Your task to perform on an android device: toggle notification dots Image 0: 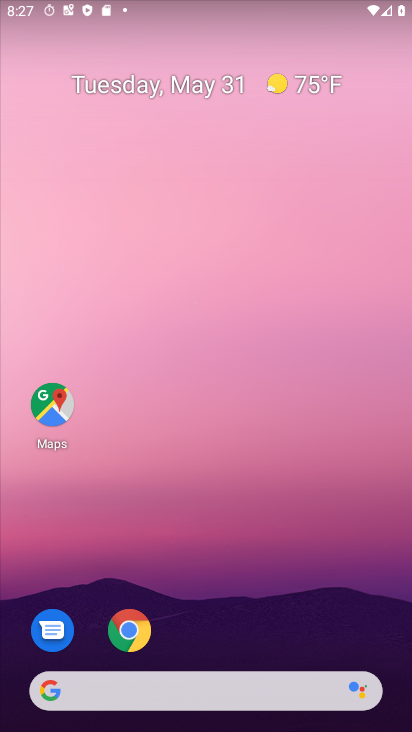
Step 0: drag from (234, 616) to (225, 186)
Your task to perform on an android device: toggle notification dots Image 1: 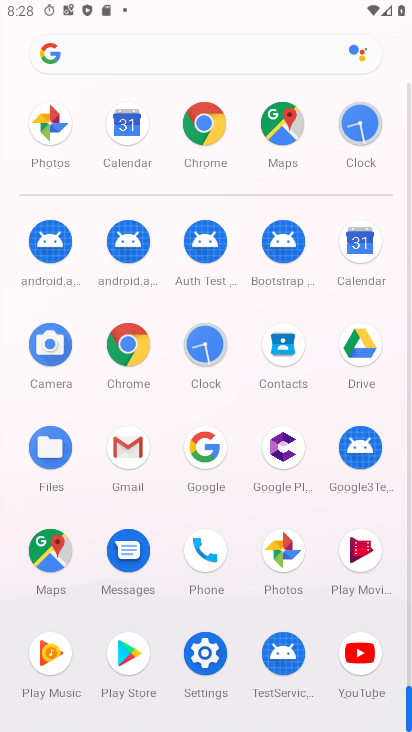
Step 1: drag from (176, 511) to (250, 182)
Your task to perform on an android device: toggle notification dots Image 2: 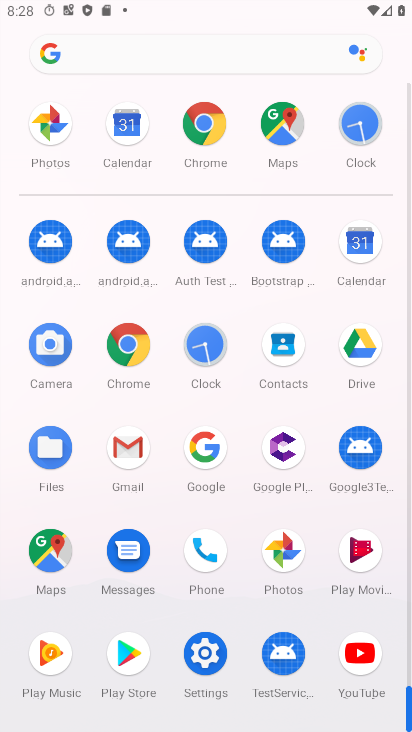
Step 2: drag from (188, 510) to (237, 274)
Your task to perform on an android device: toggle notification dots Image 3: 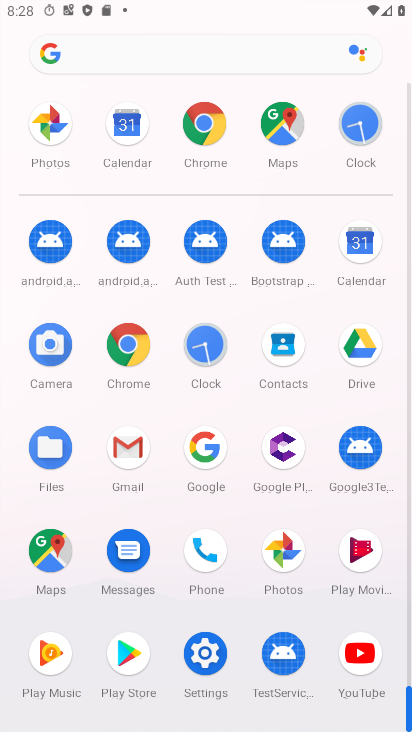
Step 3: click (209, 656)
Your task to perform on an android device: toggle notification dots Image 4: 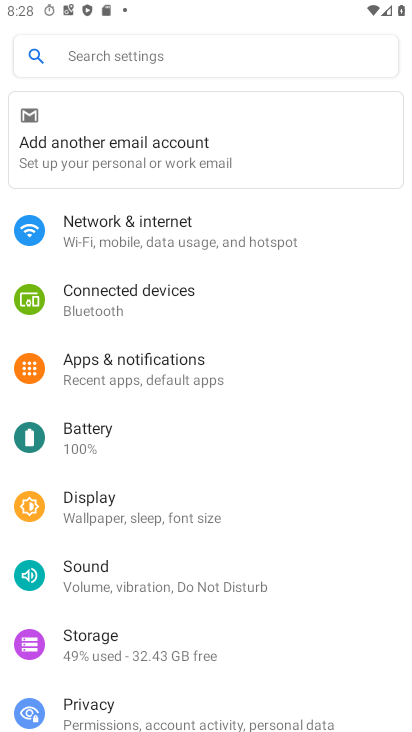
Step 4: click (138, 380)
Your task to perform on an android device: toggle notification dots Image 5: 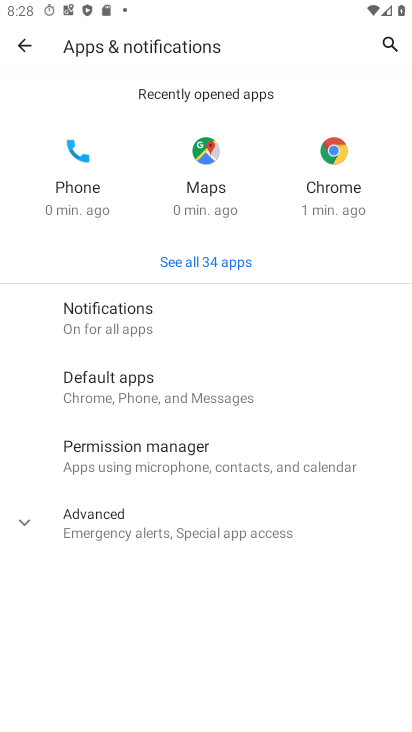
Step 5: click (168, 315)
Your task to perform on an android device: toggle notification dots Image 6: 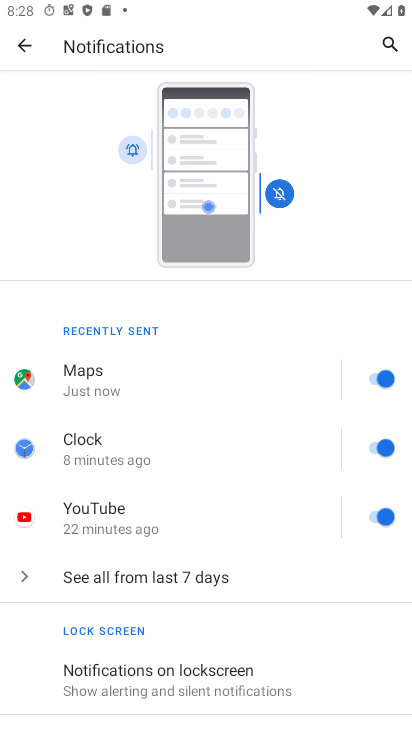
Step 6: drag from (143, 656) to (187, 351)
Your task to perform on an android device: toggle notification dots Image 7: 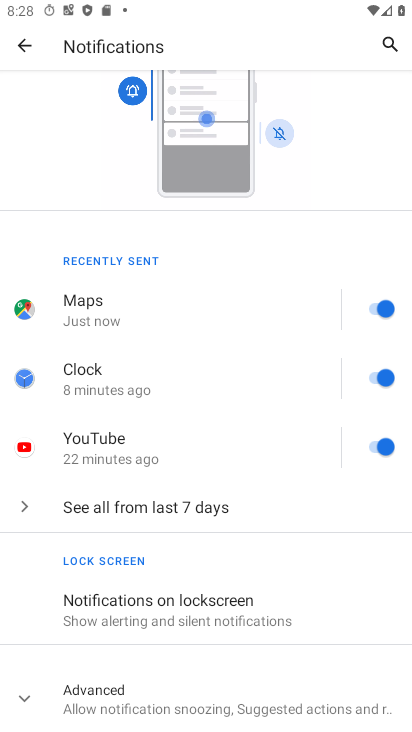
Step 7: click (103, 697)
Your task to perform on an android device: toggle notification dots Image 8: 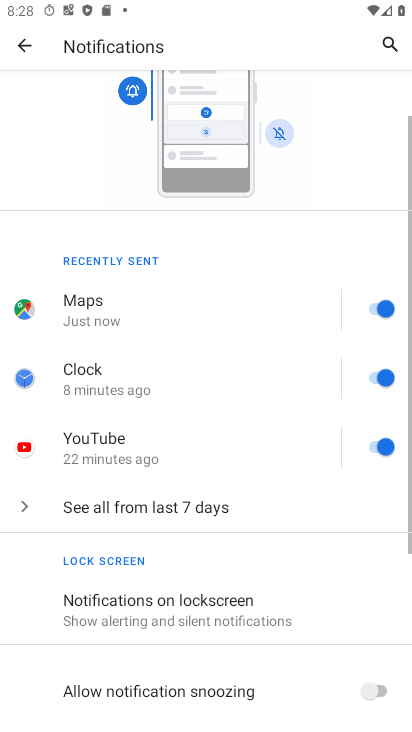
Step 8: drag from (180, 608) to (236, 241)
Your task to perform on an android device: toggle notification dots Image 9: 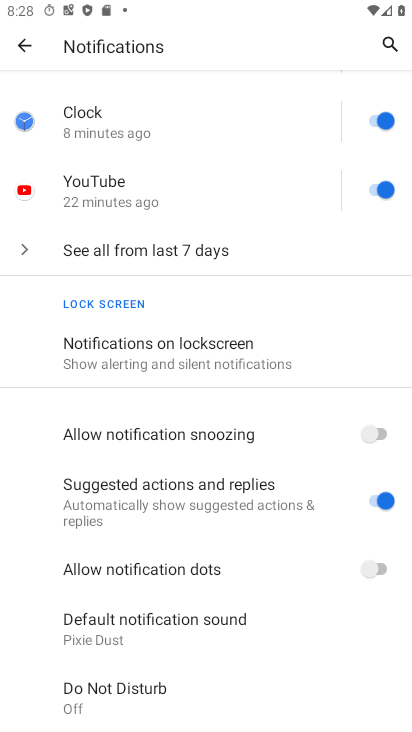
Step 9: click (398, 573)
Your task to perform on an android device: toggle notification dots Image 10: 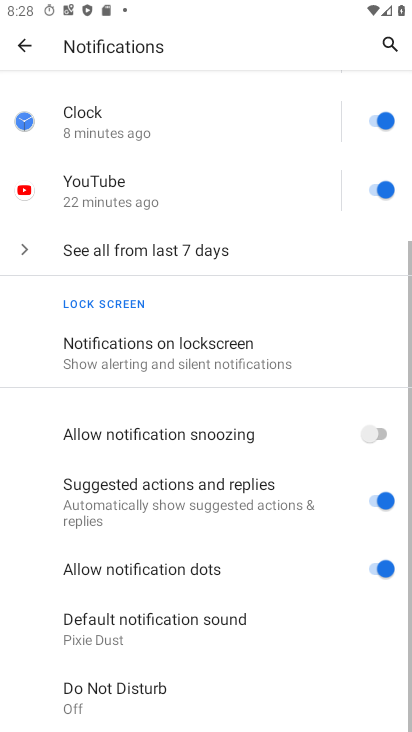
Step 10: task complete